Your task to perform on an android device: Open Android settings Image 0: 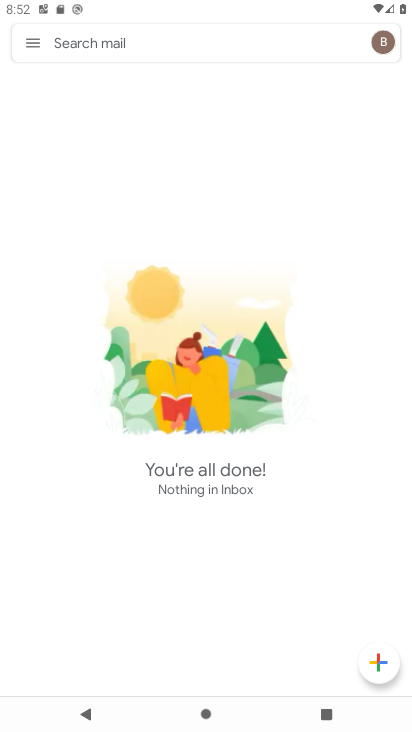
Step 0: press home button
Your task to perform on an android device: Open Android settings Image 1: 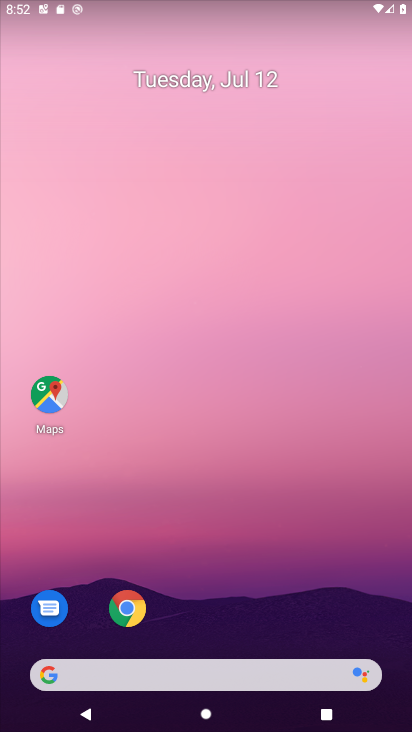
Step 1: drag from (191, 678) to (341, 21)
Your task to perform on an android device: Open Android settings Image 2: 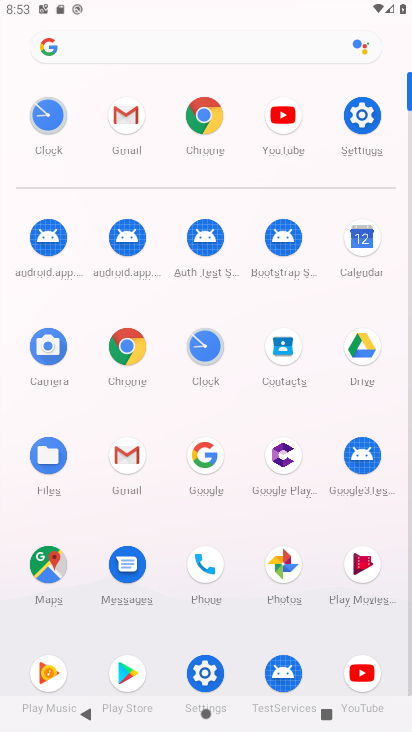
Step 2: click (361, 117)
Your task to perform on an android device: Open Android settings Image 3: 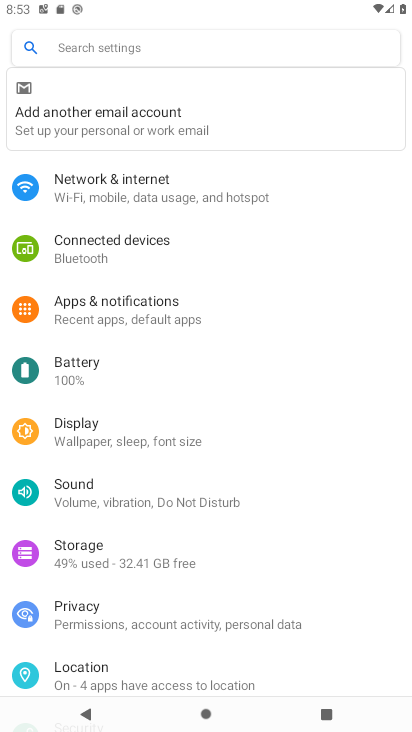
Step 3: task complete